Your task to perform on an android device: see sites visited before in the chrome app Image 0: 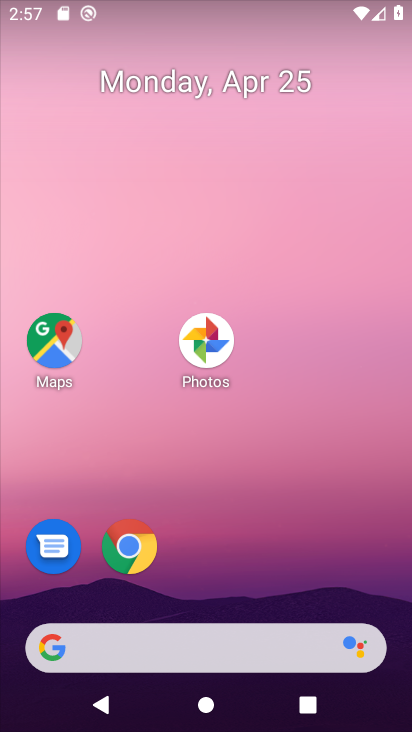
Step 0: drag from (241, 523) to (235, 238)
Your task to perform on an android device: see sites visited before in the chrome app Image 1: 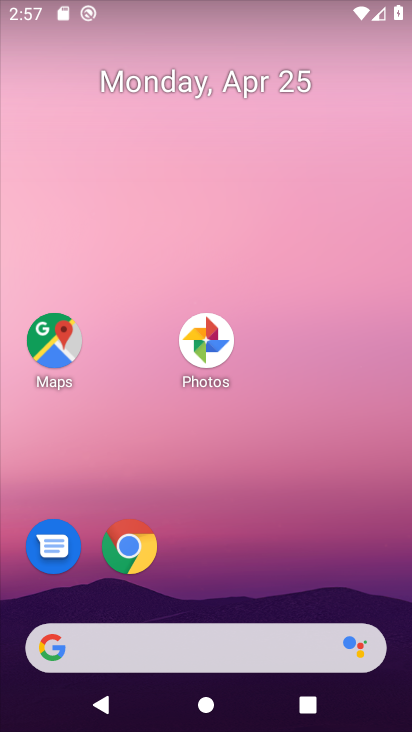
Step 1: drag from (283, 564) to (286, 225)
Your task to perform on an android device: see sites visited before in the chrome app Image 2: 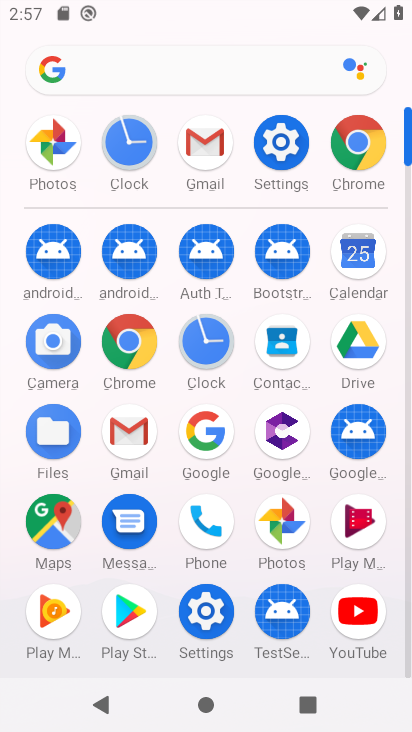
Step 2: click (366, 131)
Your task to perform on an android device: see sites visited before in the chrome app Image 3: 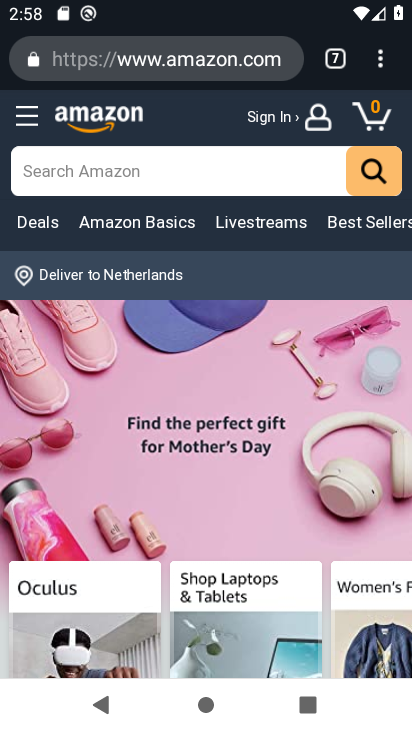
Step 3: click (374, 65)
Your task to perform on an android device: see sites visited before in the chrome app Image 4: 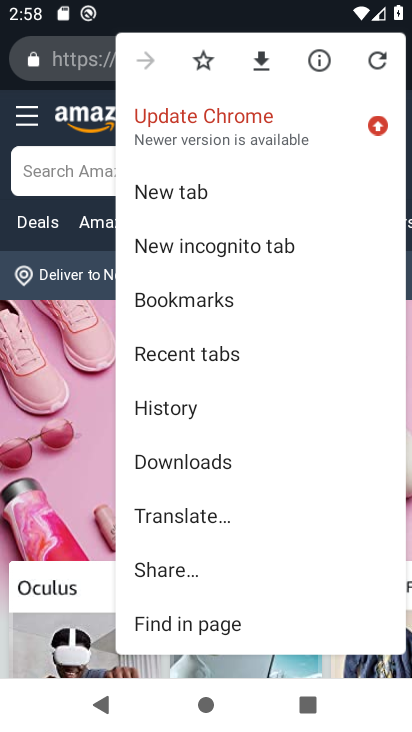
Step 4: click (206, 401)
Your task to perform on an android device: see sites visited before in the chrome app Image 5: 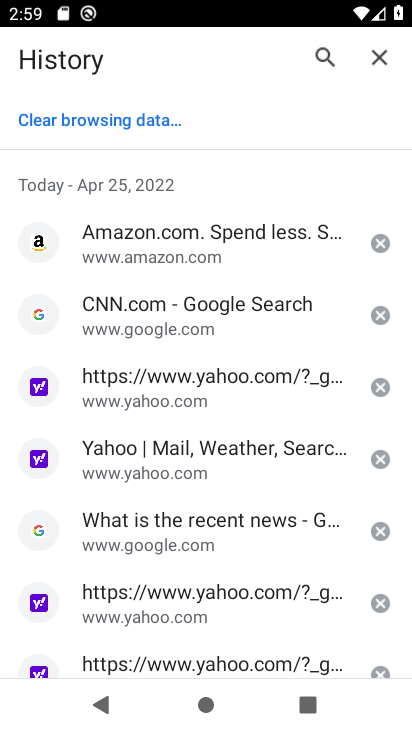
Step 5: task complete